Your task to perform on an android device: set the stopwatch Image 0: 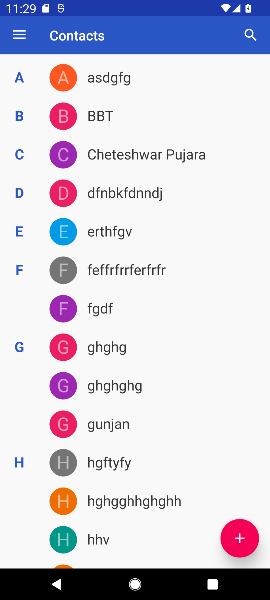
Step 0: press home button
Your task to perform on an android device: set the stopwatch Image 1: 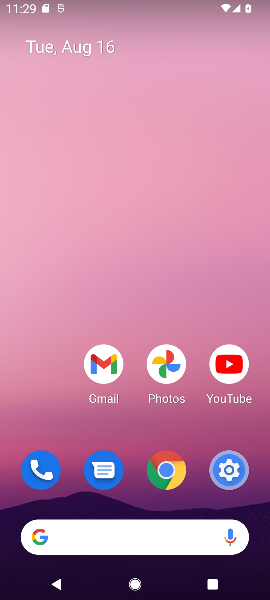
Step 1: drag from (39, 406) to (75, 7)
Your task to perform on an android device: set the stopwatch Image 2: 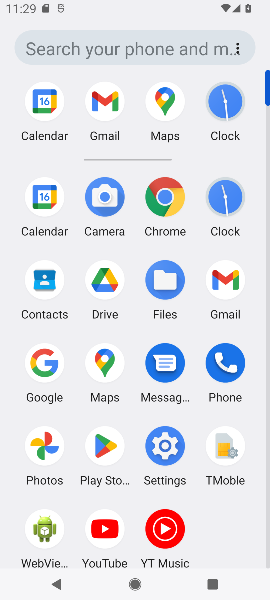
Step 2: click (230, 97)
Your task to perform on an android device: set the stopwatch Image 3: 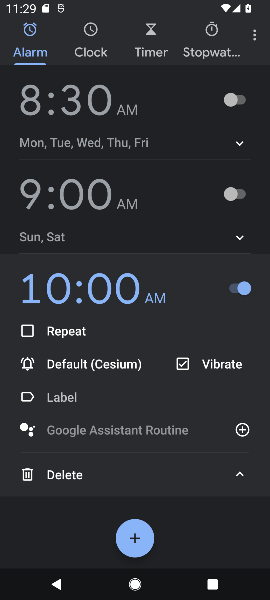
Step 3: click (213, 36)
Your task to perform on an android device: set the stopwatch Image 4: 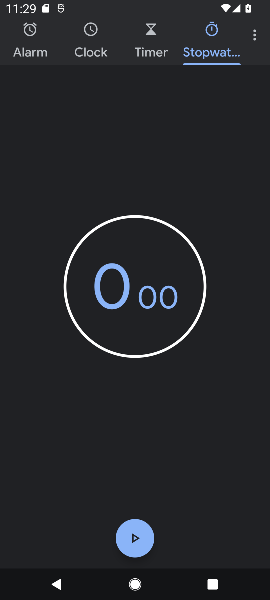
Step 4: task complete